Your task to perform on an android device: toggle priority inbox in the gmail app Image 0: 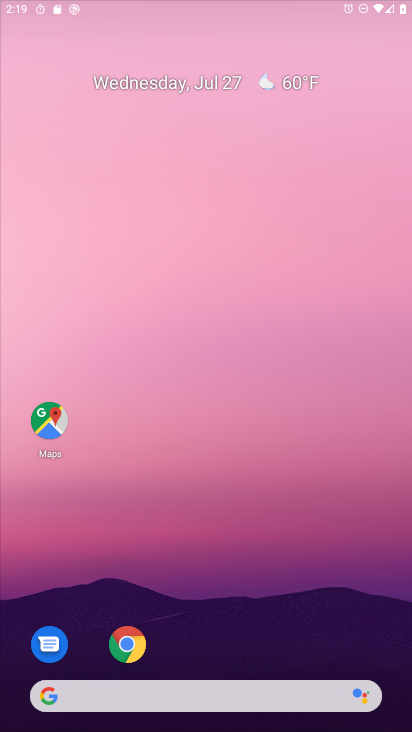
Step 0: press home button
Your task to perform on an android device: toggle priority inbox in the gmail app Image 1: 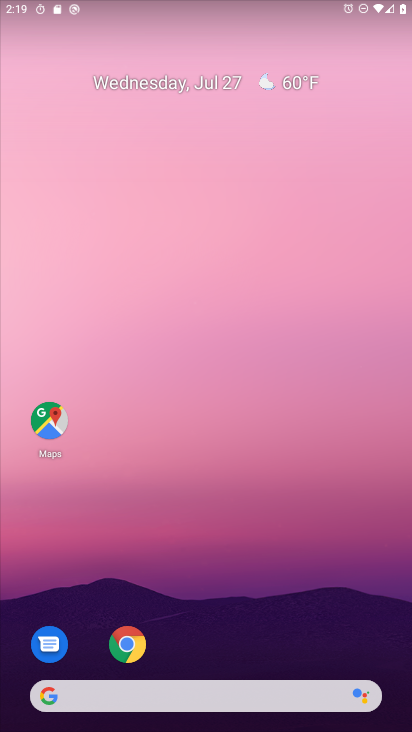
Step 1: drag from (160, 588) to (198, 262)
Your task to perform on an android device: toggle priority inbox in the gmail app Image 2: 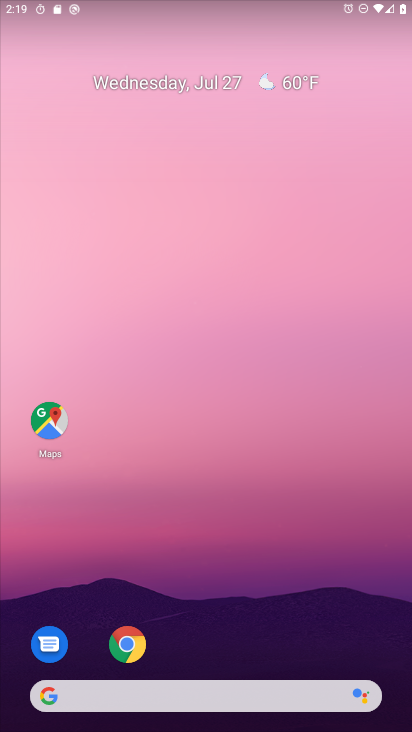
Step 2: drag from (200, 660) to (309, 129)
Your task to perform on an android device: toggle priority inbox in the gmail app Image 3: 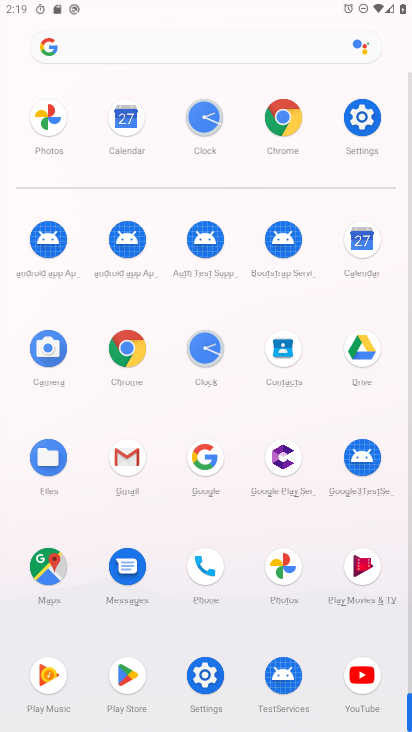
Step 3: click (137, 446)
Your task to perform on an android device: toggle priority inbox in the gmail app Image 4: 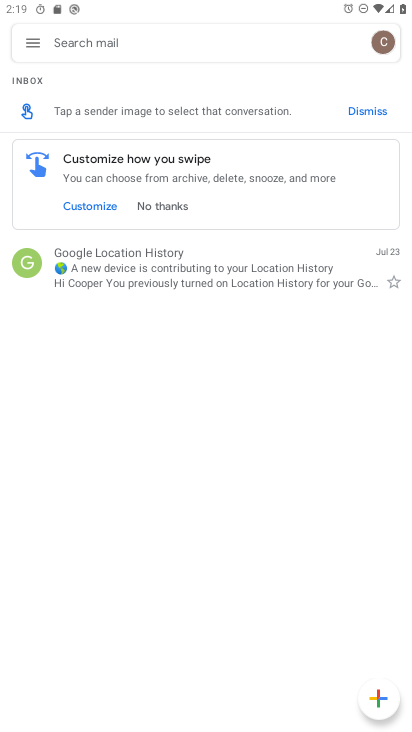
Step 4: click (24, 44)
Your task to perform on an android device: toggle priority inbox in the gmail app Image 5: 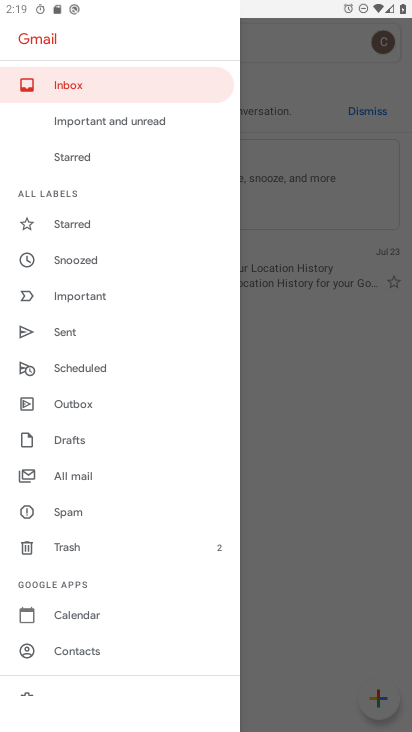
Step 5: drag from (85, 572) to (135, 69)
Your task to perform on an android device: toggle priority inbox in the gmail app Image 6: 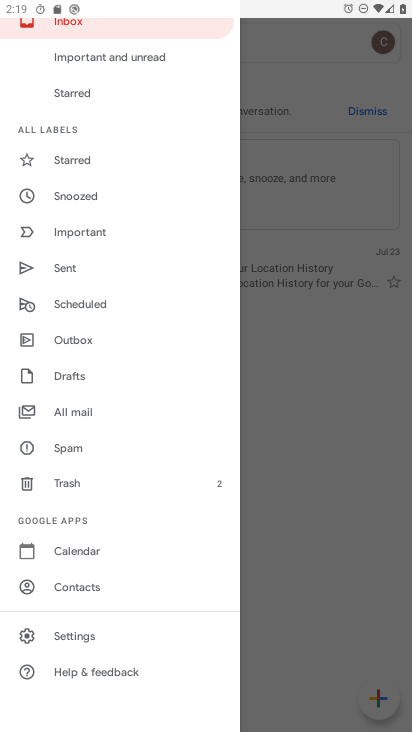
Step 6: click (81, 632)
Your task to perform on an android device: toggle priority inbox in the gmail app Image 7: 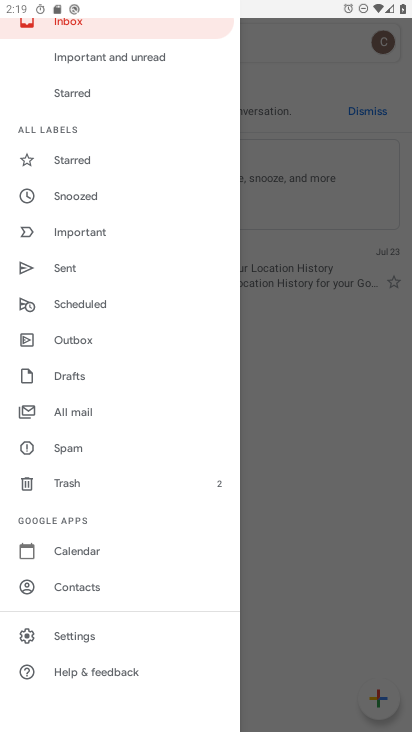
Step 7: click (80, 632)
Your task to perform on an android device: toggle priority inbox in the gmail app Image 8: 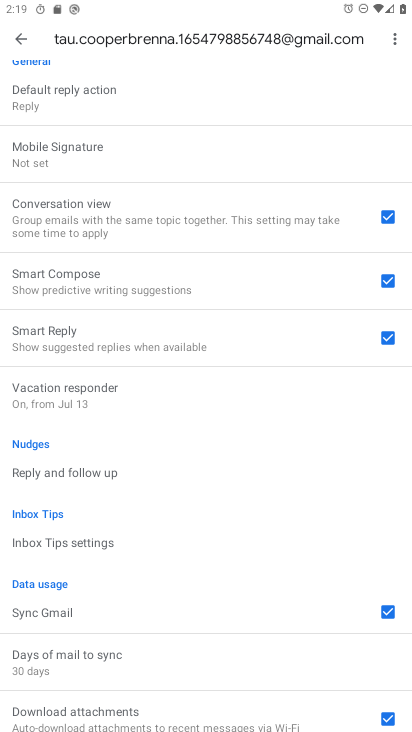
Step 8: drag from (103, 562) to (97, 220)
Your task to perform on an android device: toggle priority inbox in the gmail app Image 9: 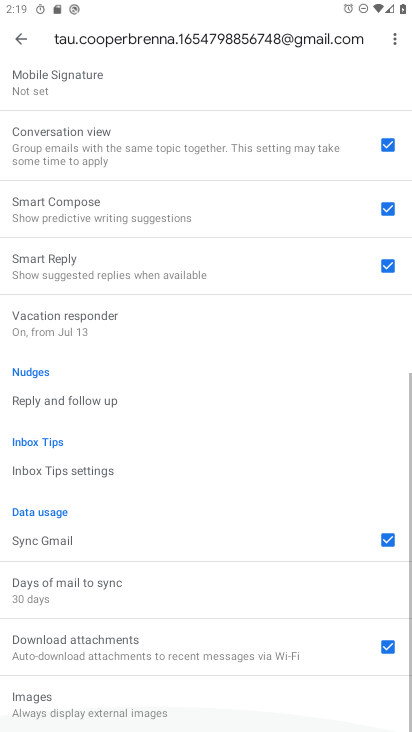
Step 9: drag from (116, 291) to (280, 729)
Your task to perform on an android device: toggle priority inbox in the gmail app Image 10: 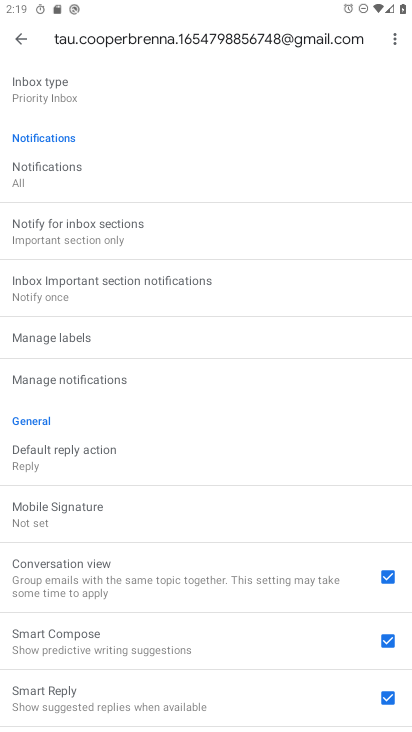
Step 10: drag from (90, 196) to (332, 728)
Your task to perform on an android device: toggle priority inbox in the gmail app Image 11: 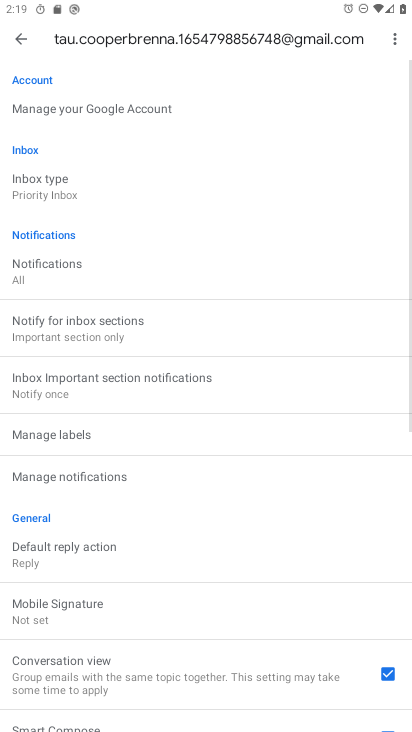
Step 11: click (67, 178)
Your task to perform on an android device: toggle priority inbox in the gmail app Image 12: 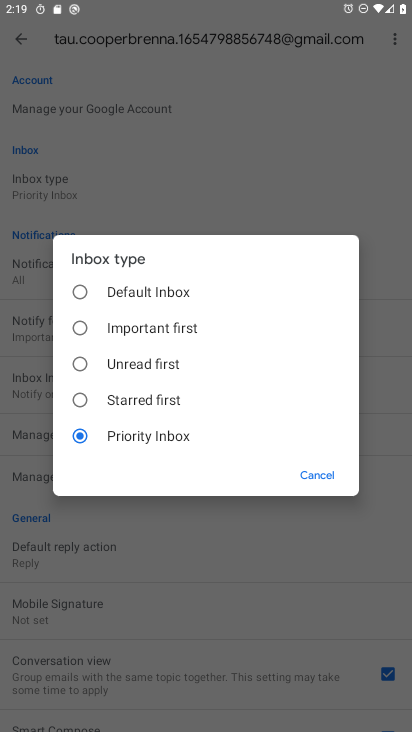
Step 12: click (72, 294)
Your task to perform on an android device: toggle priority inbox in the gmail app Image 13: 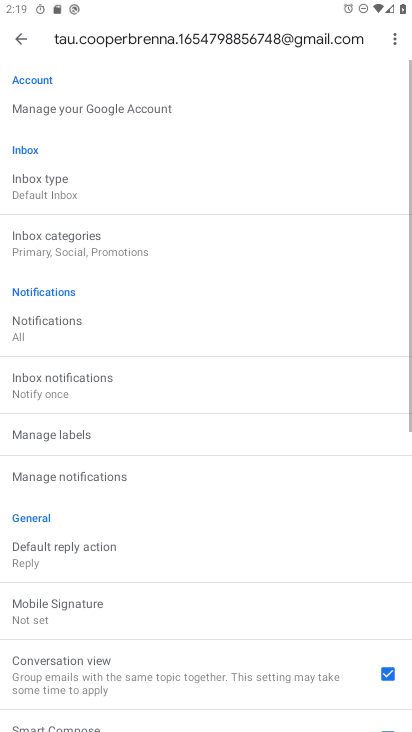
Step 13: task complete